Your task to perform on an android device: Open the calendar app, open the side menu, and click the "Day" option Image 0: 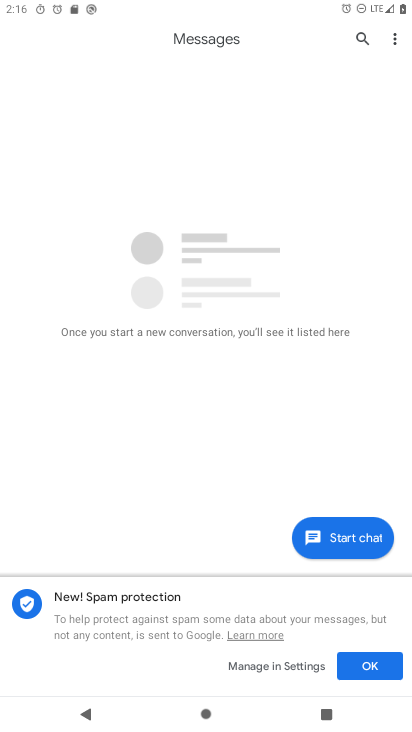
Step 0: press home button
Your task to perform on an android device: Open the calendar app, open the side menu, and click the "Day" option Image 1: 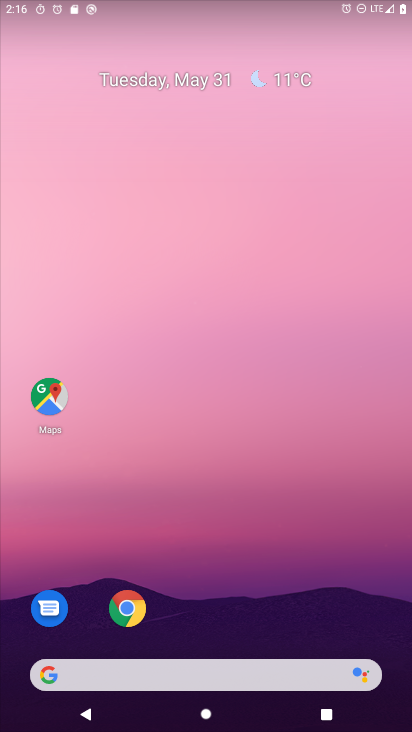
Step 1: drag from (310, 646) to (316, 5)
Your task to perform on an android device: Open the calendar app, open the side menu, and click the "Day" option Image 2: 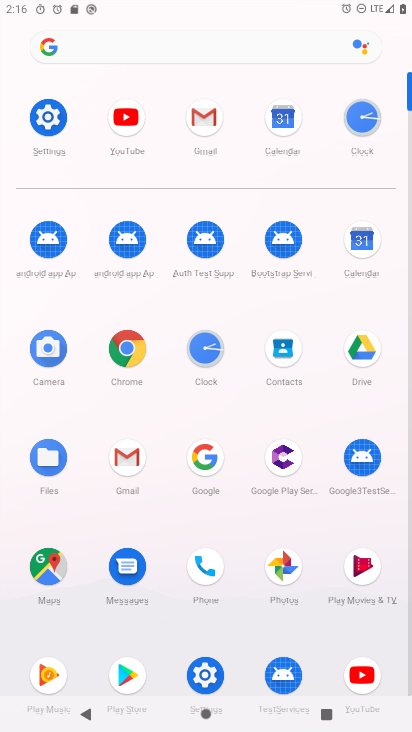
Step 2: click (280, 114)
Your task to perform on an android device: Open the calendar app, open the side menu, and click the "Day" option Image 3: 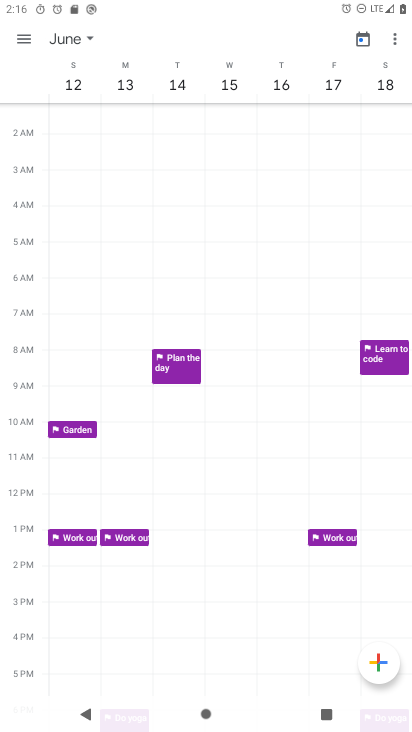
Step 3: click (18, 43)
Your task to perform on an android device: Open the calendar app, open the side menu, and click the "Day" option Image 4: 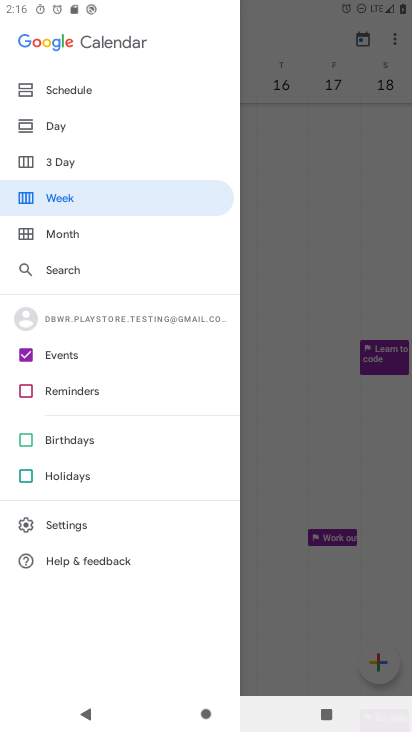
Step 4: click (49, 125)
Your task to perform on an android device: Open the calendar app, open the side menu, and click the "Day" option Image 5: 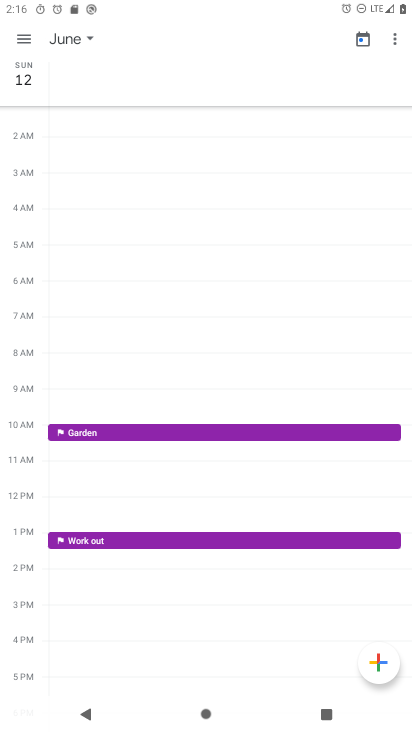
Step 5: task complete